Your task to perform on an android device: What's the weather? Image 0: 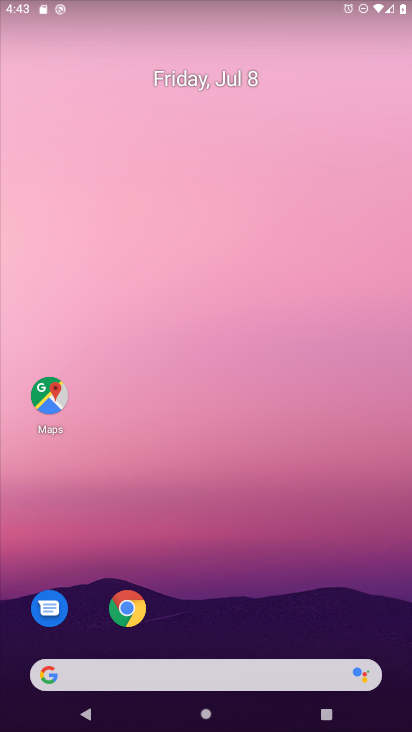
Step 0: drag from (318, 676) to (251, 69)
Your task to perform on an android device: What's the weather? Image 1: 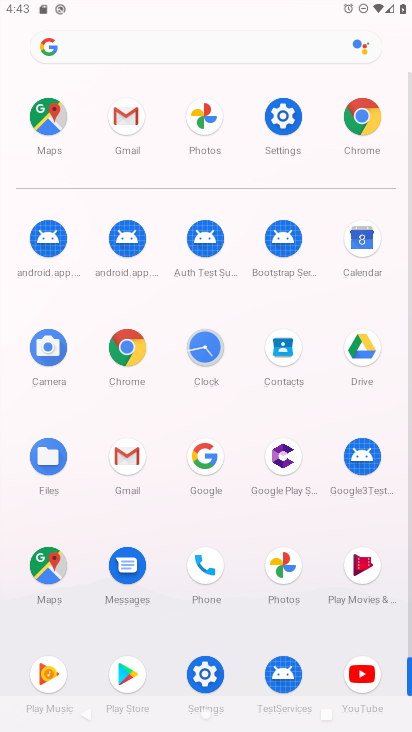
Step 1: click (118, 338)
Your task to perform on an android device: What's the weather? Image 2: 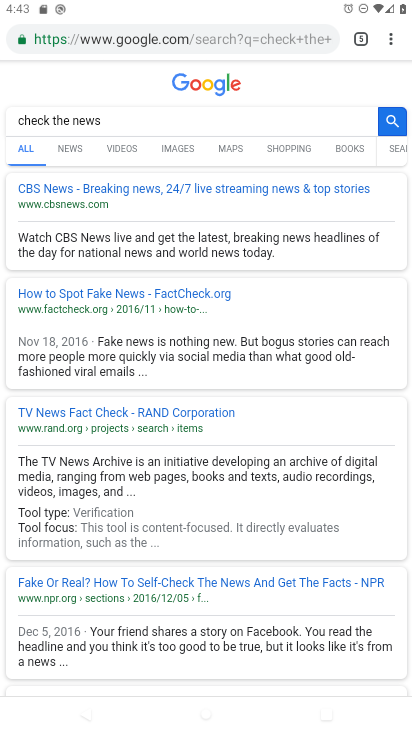
Step 2: click (268, 31)
Your task to perform on an android device: What's the weather? Image 3: 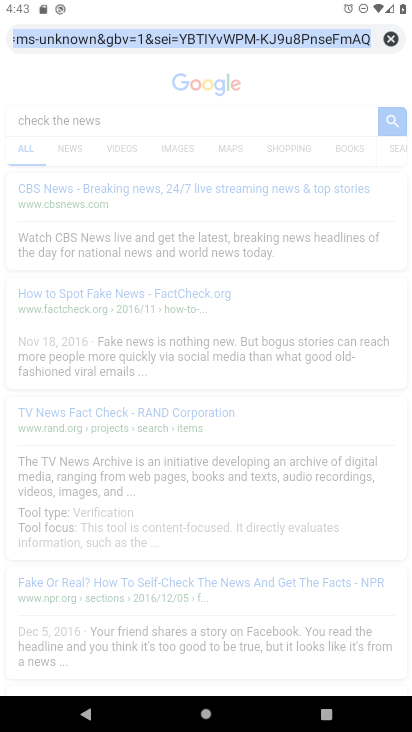
Step 3: type "whats the weather"
Your task to perform on an android device: What's the weather? Image 4: 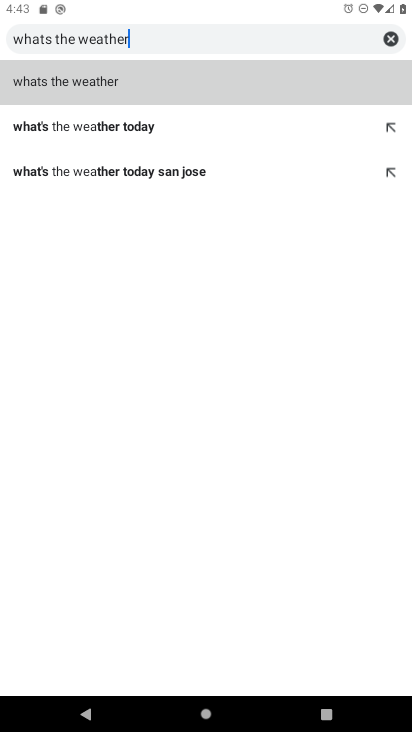
Step 4: click (68, 84)
Your task to perform on an android device: What's the weather? Image 5: 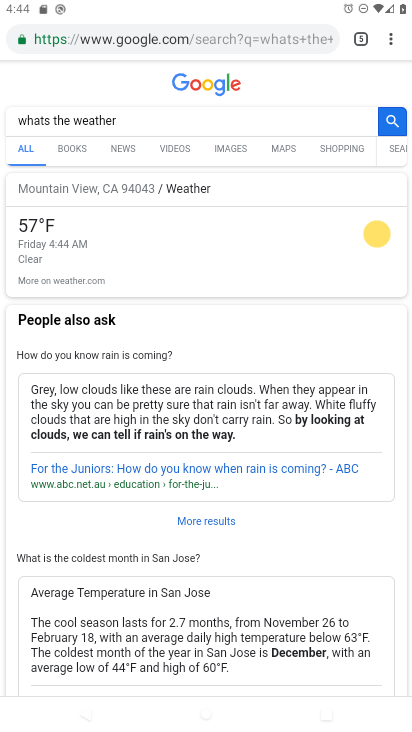
Step 5: task complete